Your task to perform on an android device: toggle wifi Image 0: 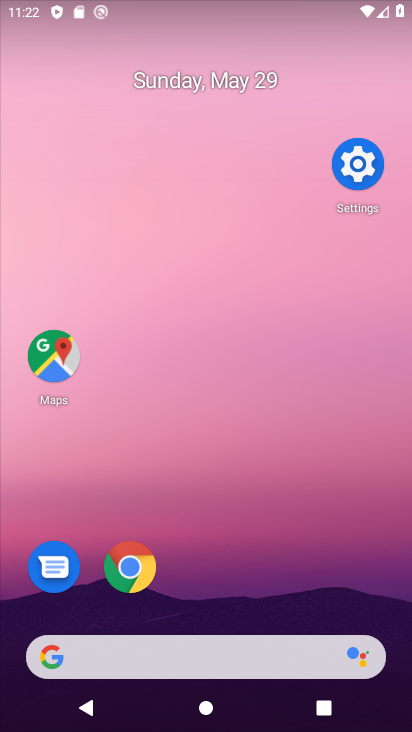
Step 0: drag from (319, 583) to (278, 140)
Your task to perform on an android device: toggle wifi Image 1: 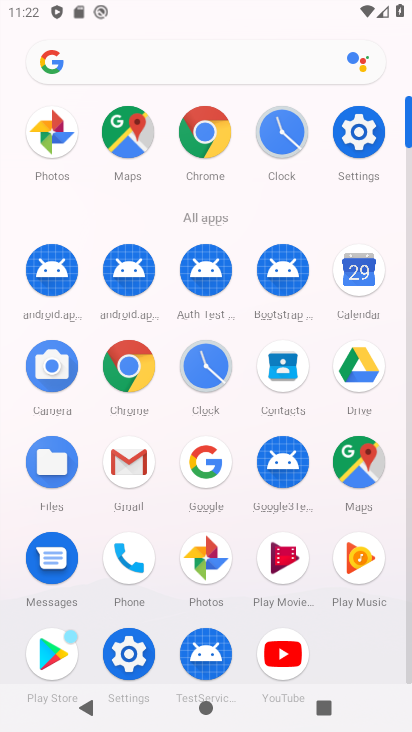
Step 1: click (138, 644)
Your task to perform on an android device: toggle wifi Image 2: 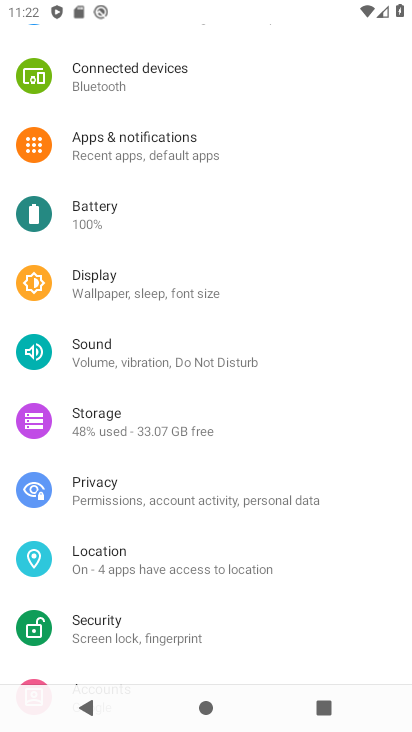
Step 2: drag from (285, 192) to (284, 582)
Your task to perform on an android device: toggle wifi Image 3: 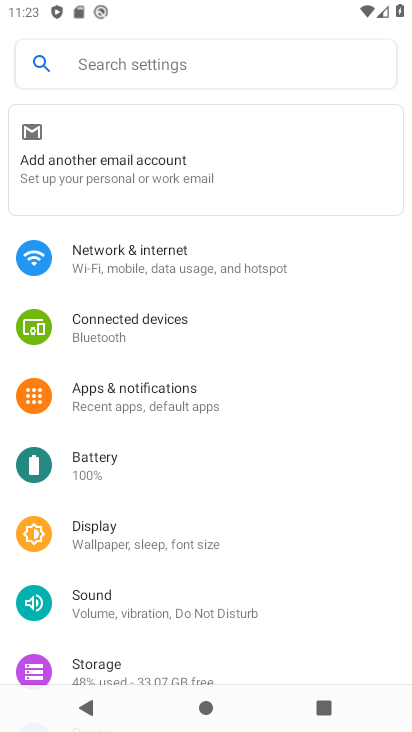
Step 3: click (248, 264)
Your task to perform on an android device: toggle wifi Image 4: 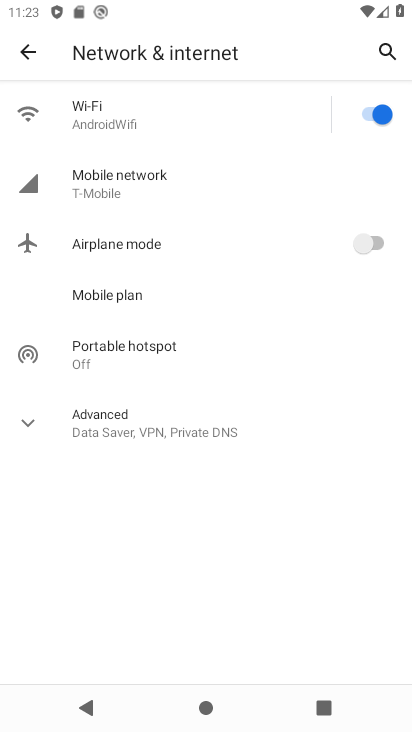
Step 4: click (383, 112)
Your task to perform on an android device: toggle wifi Image 5: 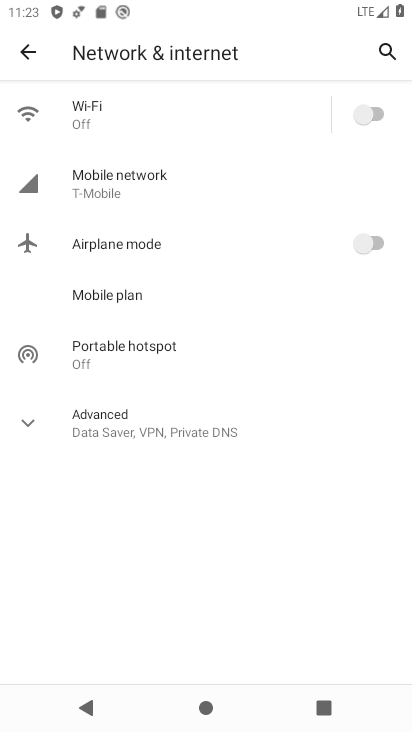
Step 5: task complete